Your task to perform on an android device: all mails in gmail Image 0: 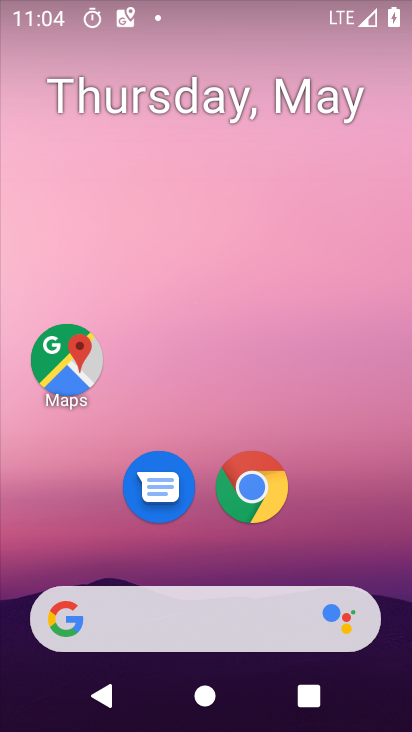
Step 0: drag from (235, 458) to (234, 44)
Your task to perform on an android device: all mails in gmail Image 1: 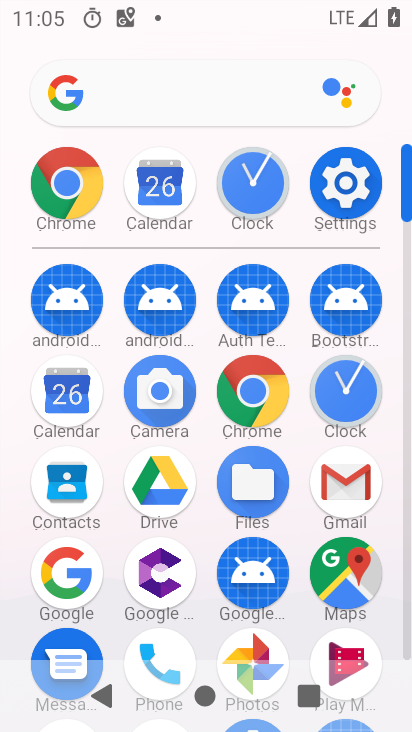
Step 1: click (364, 486)
Your task to perform on an android device: all mails in gmail Image 2: 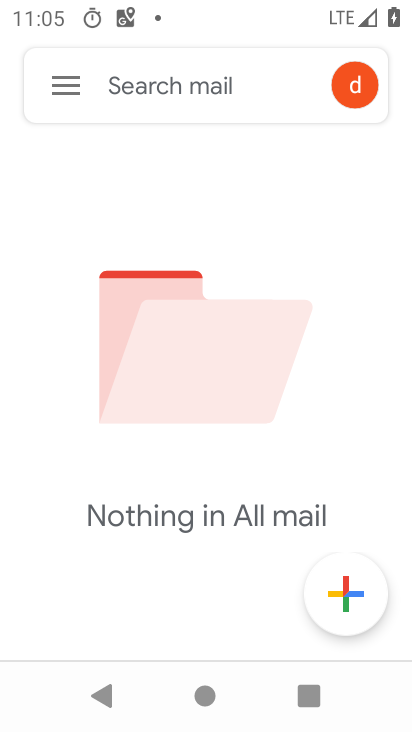
Step 2: task complete